Your task to perform on an android device: Search for the most popular books on Goodreads Image 0: 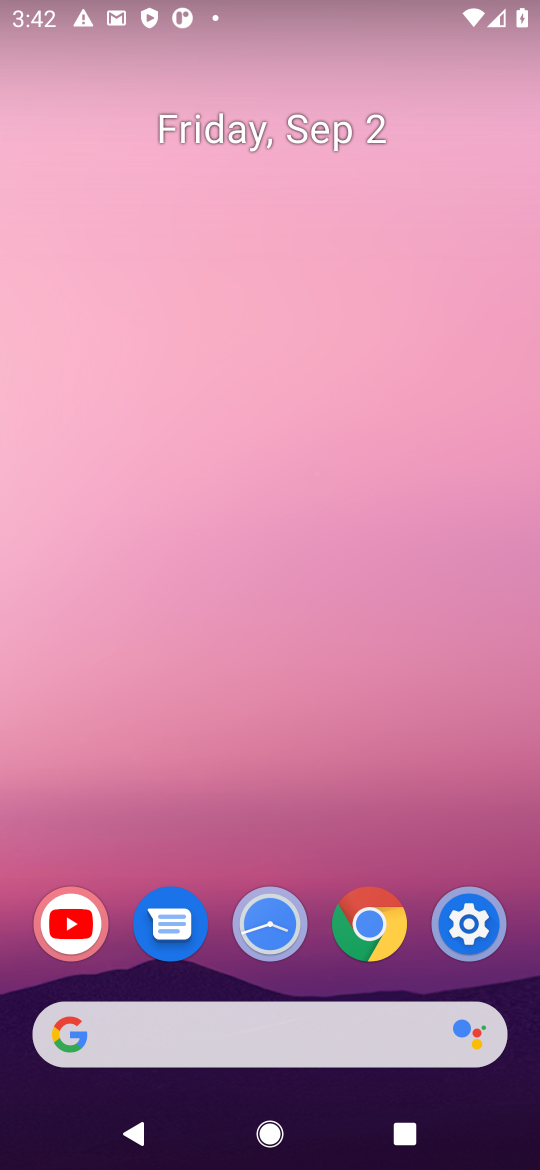
Step 0: press home button
Your task to perform on an android device: Search for the most popular books on Goodreads Image 1: 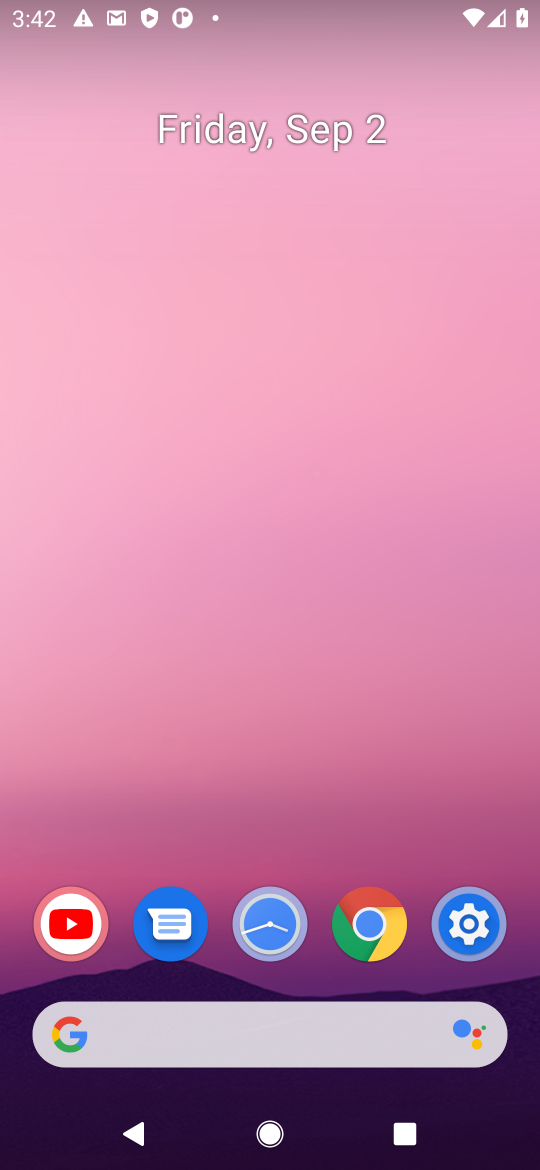
Step 1: click (426, 1028)
Your task to perform on an android device: Search for the most popular books on Goodreads Image 2: 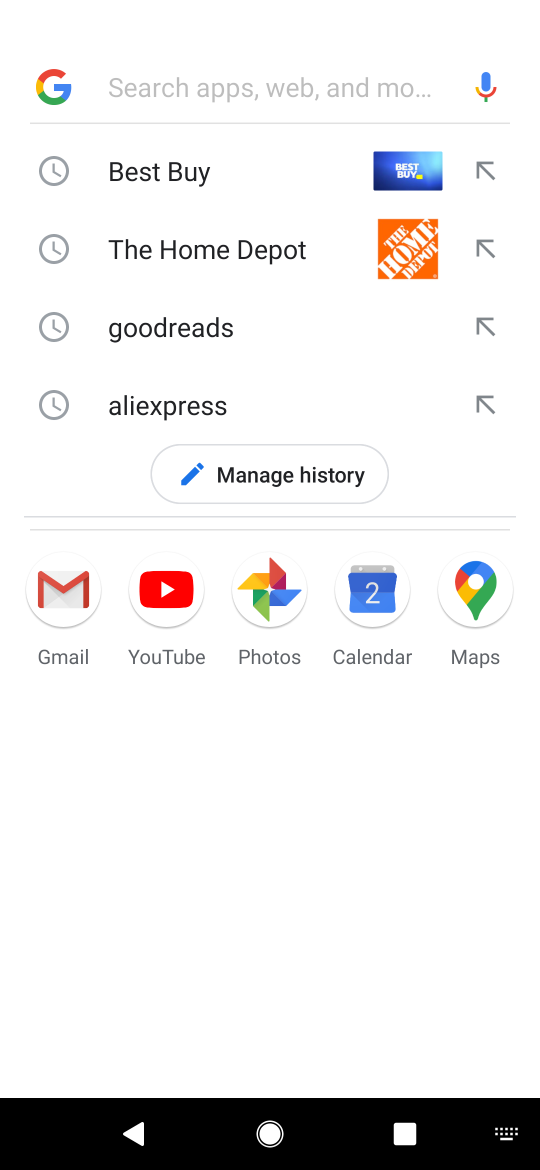
Step 2: press enter
Your task to perform on an android device: Search for the most popular books on Goodreads Image 3: 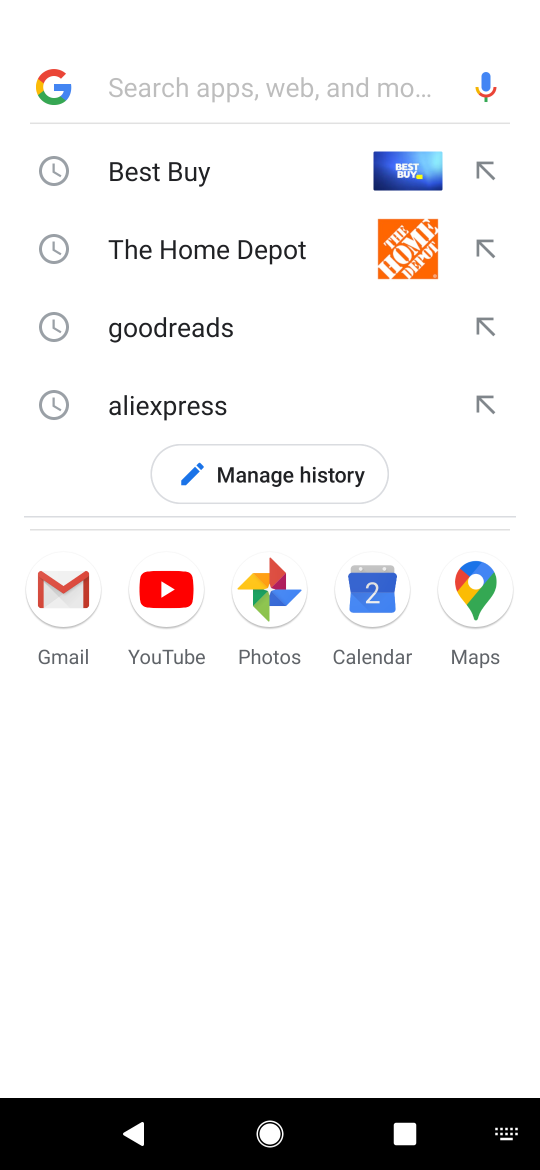
Step 3: type "goodreads"
Your task to perform on an android device: Search for the most popular books on Goodreads Image 4: 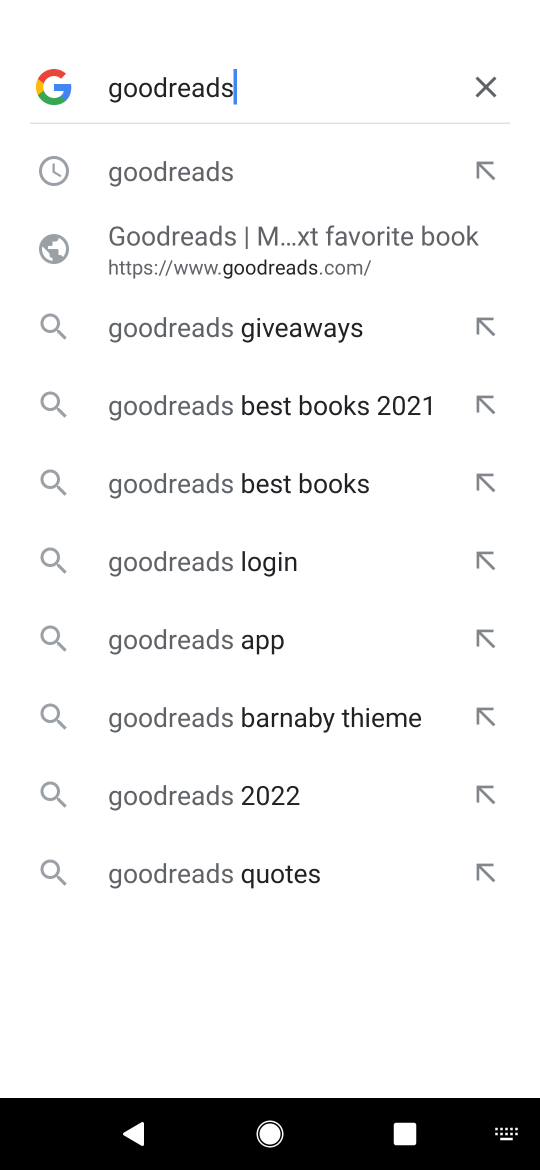
Step 4: click (214, 163)
Your task to perform on an android device: Search for the most popular books on Goodreads Image 5: 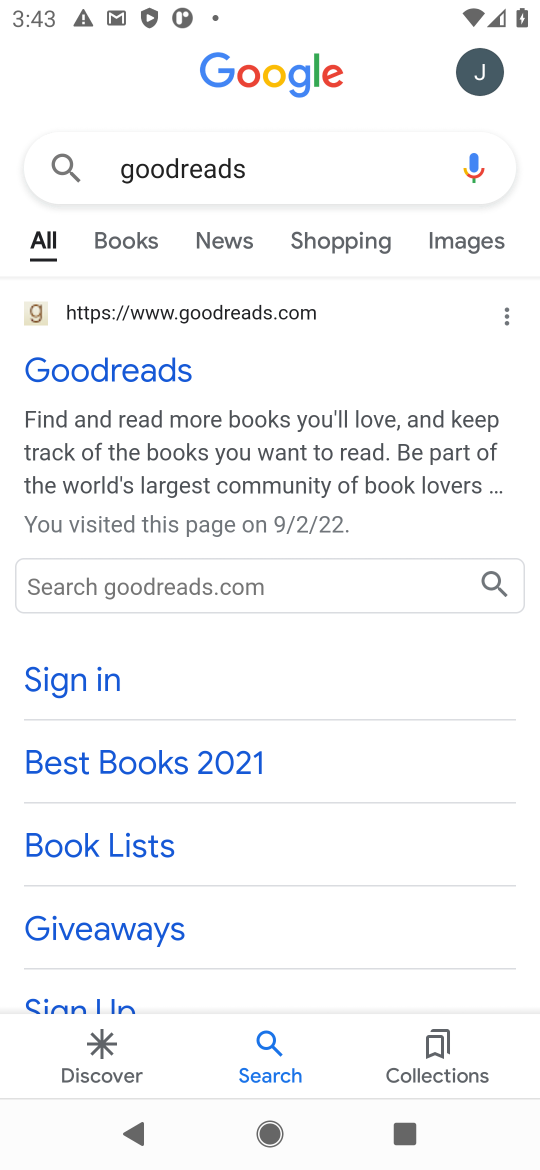
Step 5: click (150, 366)
Your task to perform on an android device: Search for the most popular books on Goodreads Image 6: 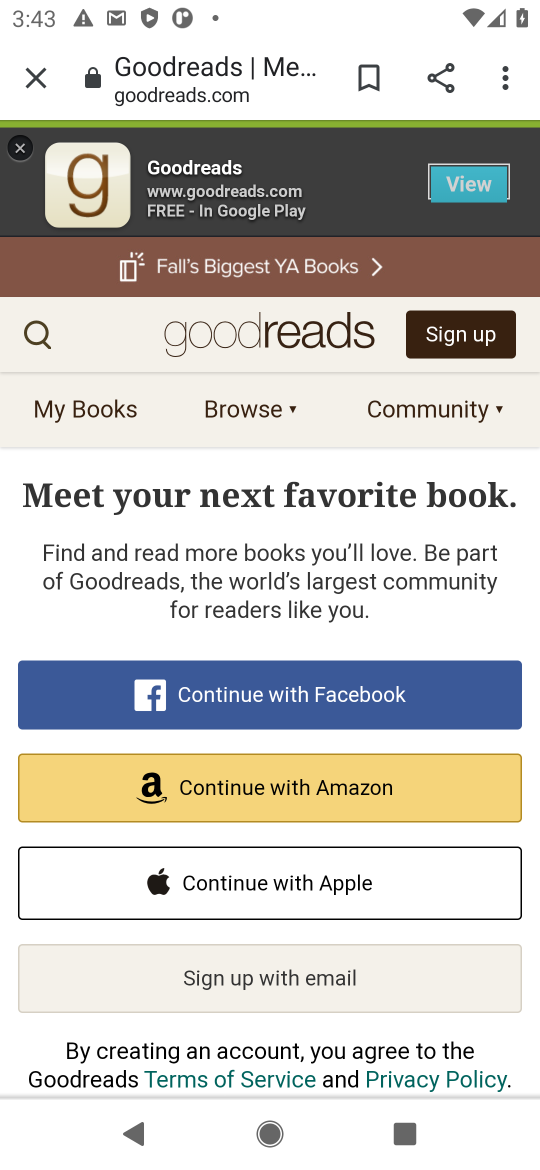
Step 6: click (23, 330)
Your task to perform on an android device: Search for the most popular books on Goodreads Image 7: 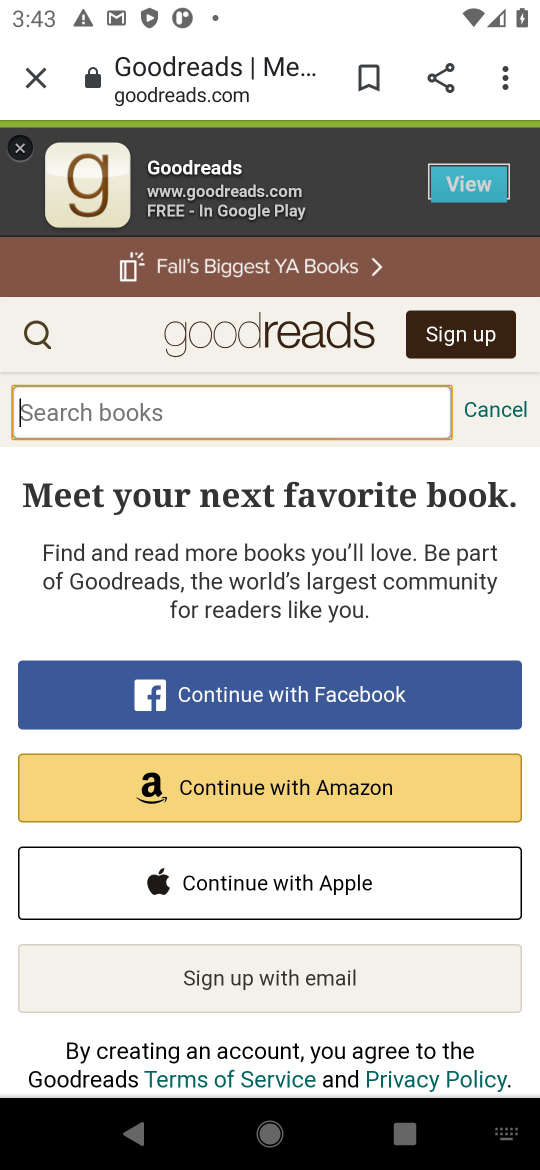
Step 7: click (78, 420)
Your task to perform on an android device: Search for the most popular books on Goodreads Image 8: 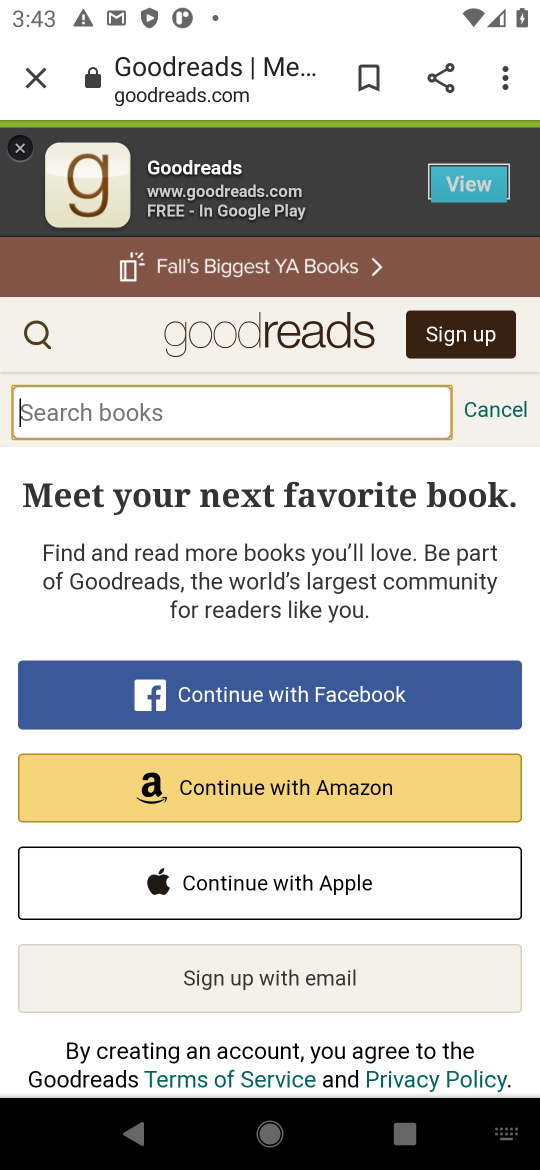
Step 8: type "most popoular books"
Your task to perform on an android device: Search for the most popular books on Goodreads Image 9: 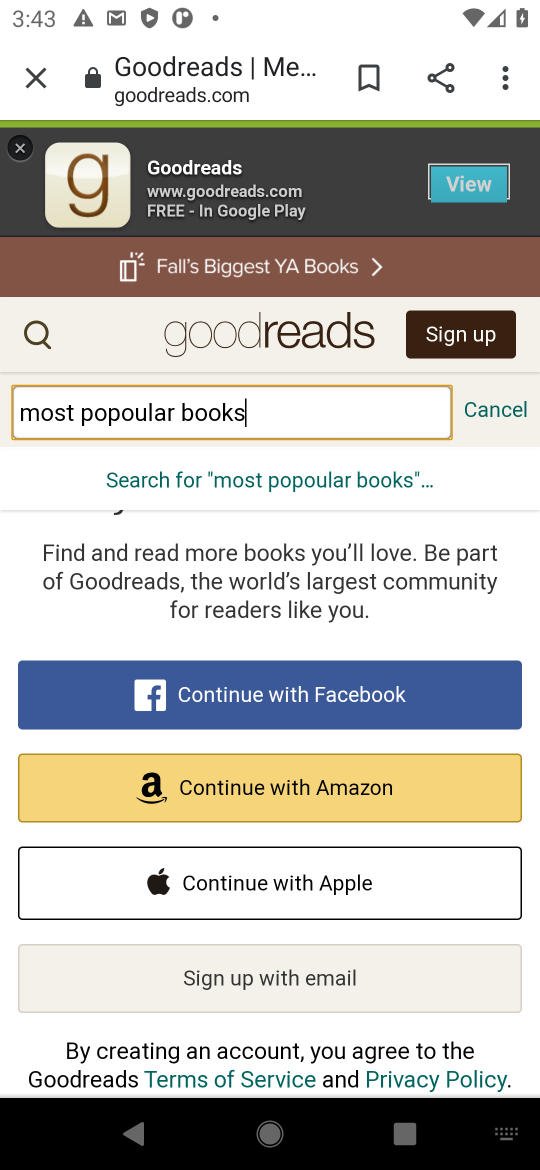
Step 9: click (34, 324)
Your task to perform on an android device: Search for the most popular books on Goodreads Image 10: 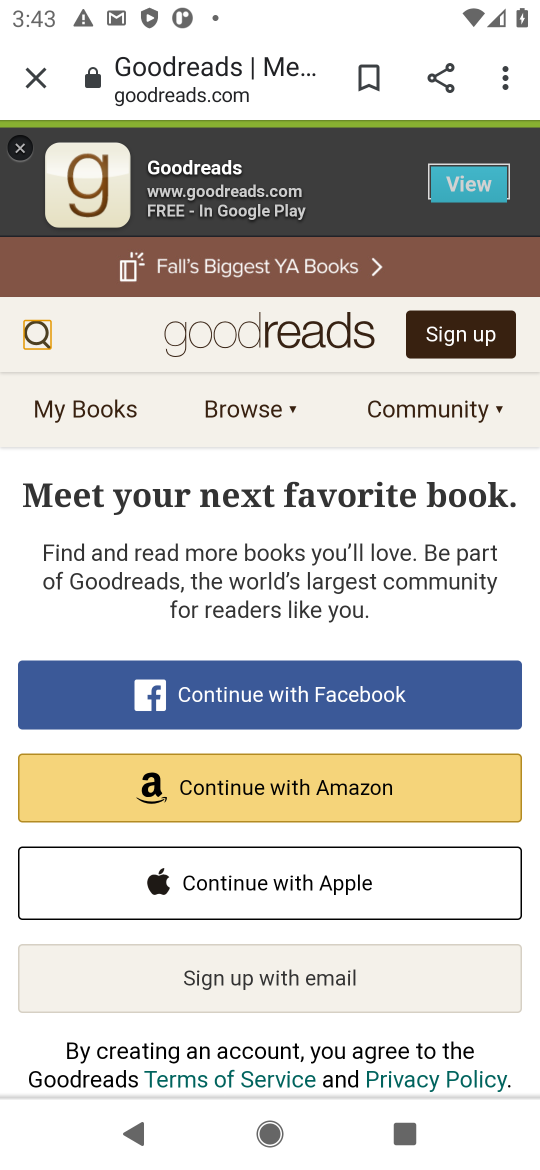
Step 10: task complete